Your task to perform on an android device: stop showing notifications on the lock screen Image 0: 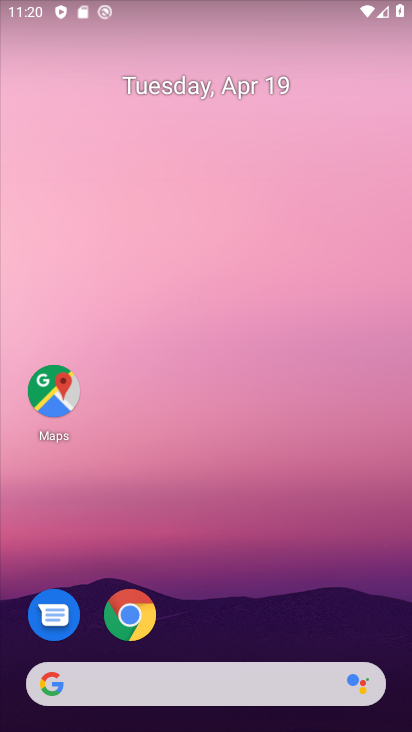
Step 0: drag from (245, 609) to (263, 4)
Your task to perform on an android device: stop showing notifications on the lock screen Image 1: 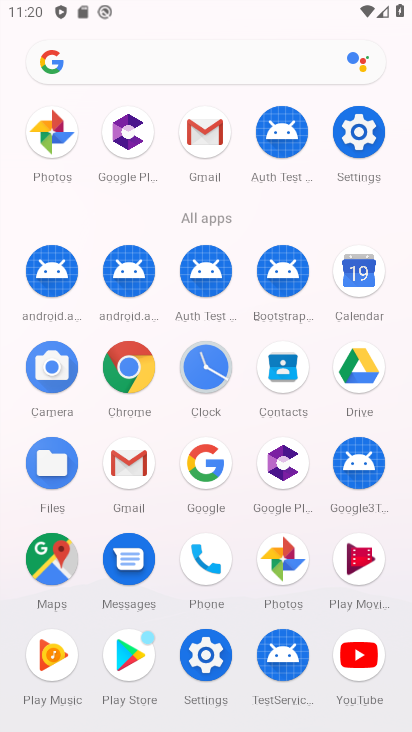
Step 1: click (363, 157)
Your task to perform on an android device: stop showing notifications on the lock screen Image 2: 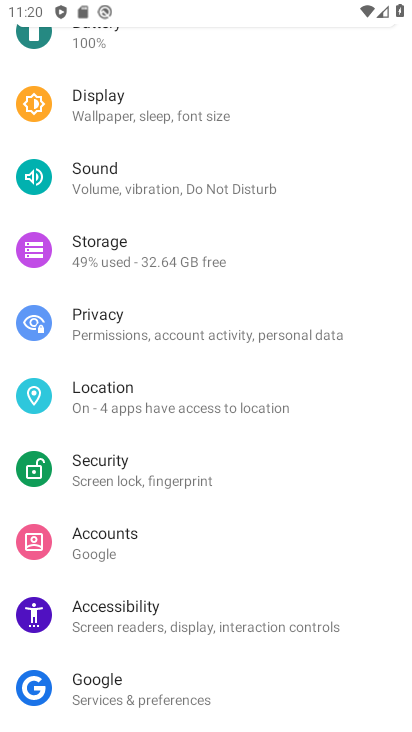
Step 2: drag from (195, 86) to (186, 589)
Your task to perform on an android device: stop showing notifications on the lock screen Image 3: 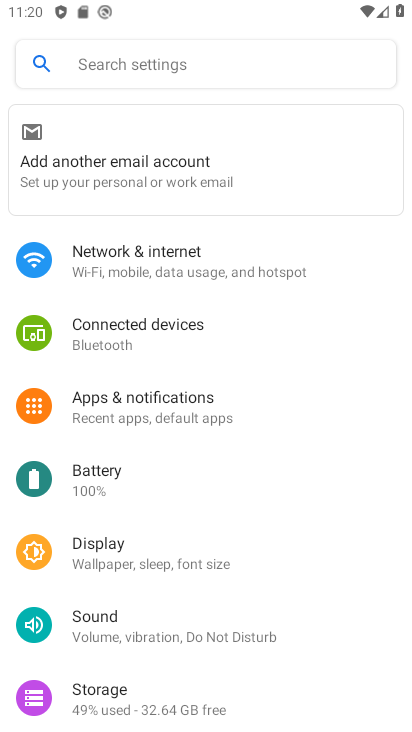
Step 3: click (169, 420)
Your task to perform on an android device: stop showing notifications on the lock screen Image 4: 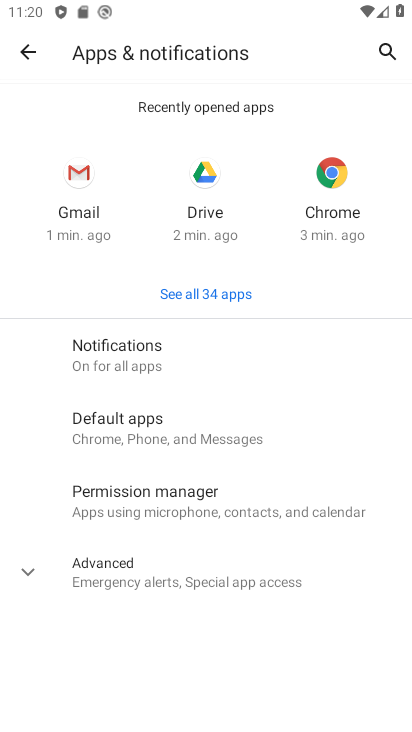
Step 4: click (160, 362)
Your task to perform on an android device: stop showing notifications on the lock screen Image 5: 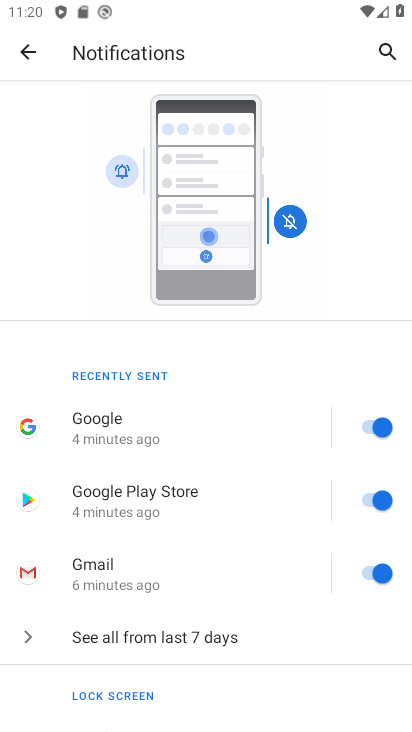
Step 5: drag from (157, 684) to (219, 90)
Your task to perform on an android device: stop showing notifications on the lock screen Image 6: 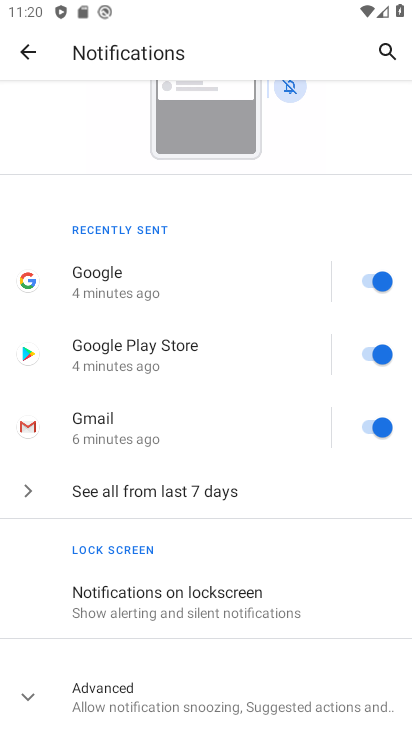
Step 6: click (148, 695)
Your task to perform on an android device: stop showing notifications on the lock screen Image 7: 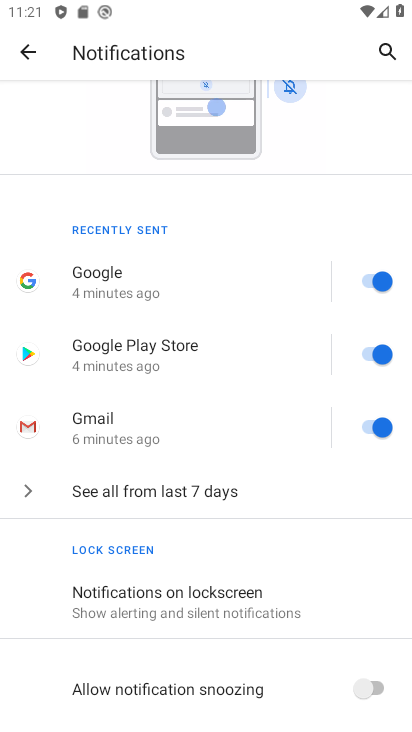
Step 7: click (133, 598)
Your task to perform on an android device: stop showing notifications on the lock screen Image 8: 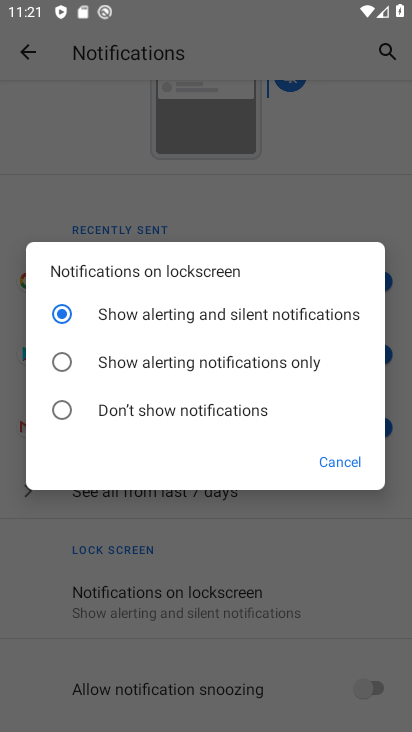
Step 8: click (64, 417)
Your task to perform on an android device: stop showing notifications on the lock screen Image 9: 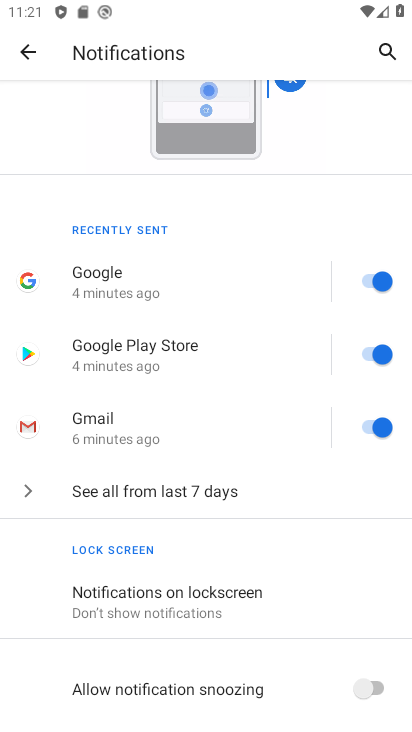
Step 9: task complete